Your task to perform on an android device: What's on my calendar tomorrow? Image 0: 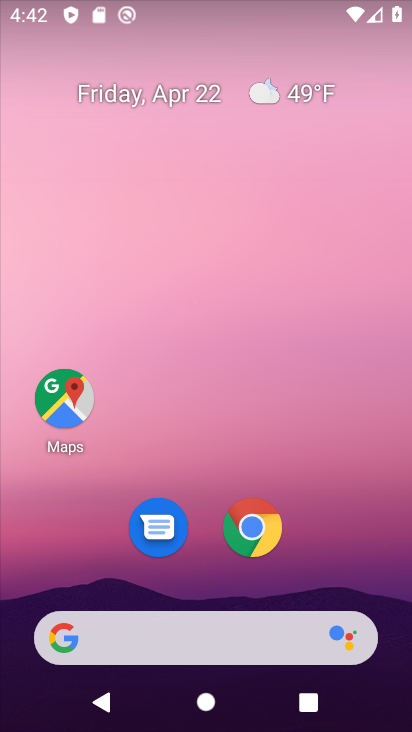
Step 0: drag from (178, 543) to (88, 208)
Your task to perform on an android device: What's on my calendar tomorrow? Image 1: 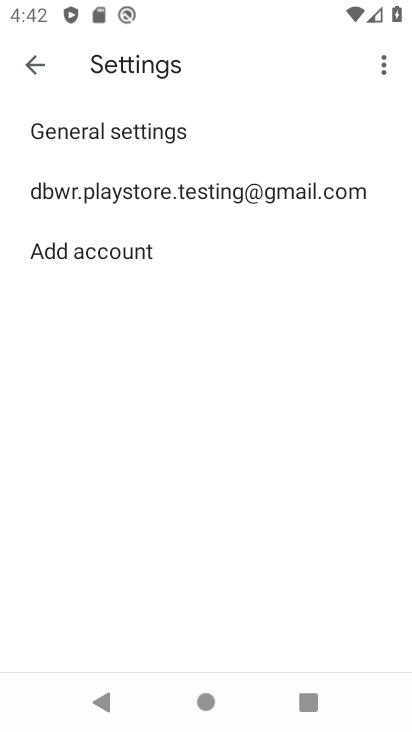
Step 1: press home button
Your task to perform on an android device: What's on my calendar tomorrow? Image 2: 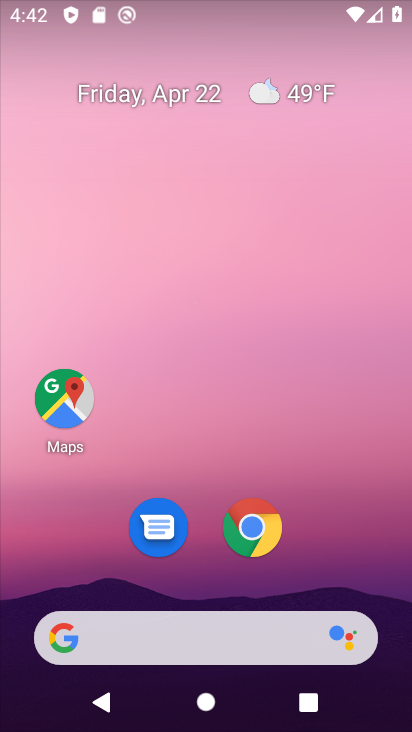
Step 2: drag from (232, 639) to (139, 85)
Your task to perform on an android device: What's on my calendar tomorrow? Image 3: 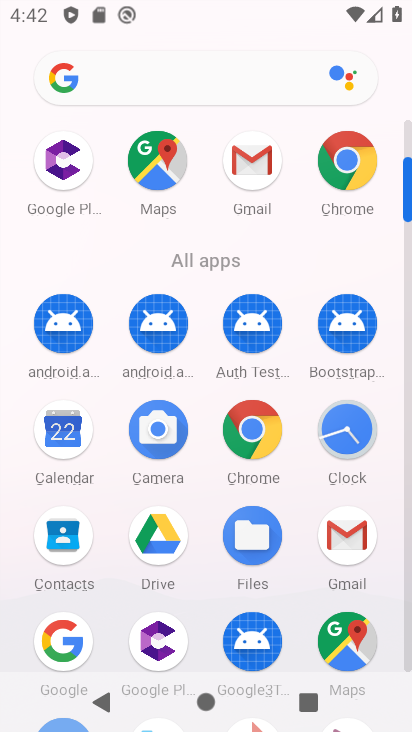
Step 3: click (80, 464)
Your task to perform on an android device: What's on my calendar tomorrow? Image 4: 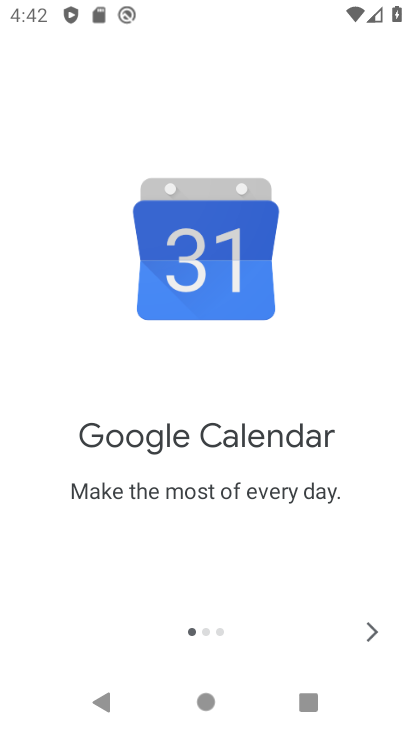
Step 4: click (363, 624)
Your task to perform on an android device: What's on my calendar tomorrow? Image 5: 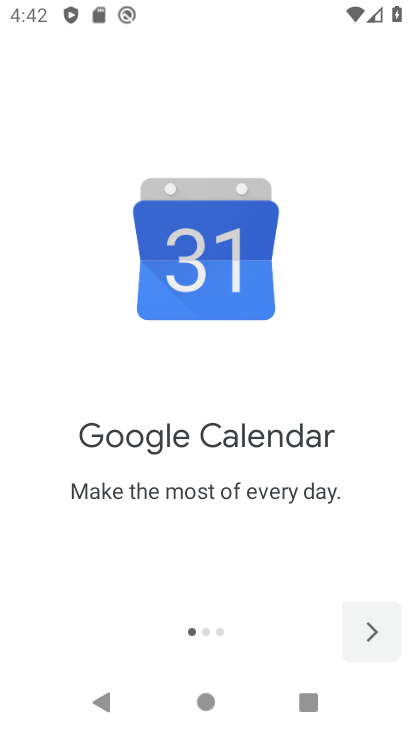
Step 5: click (361, 626)
Your task to perform on an android device: What's on my calendar tomorrow? Image 6: 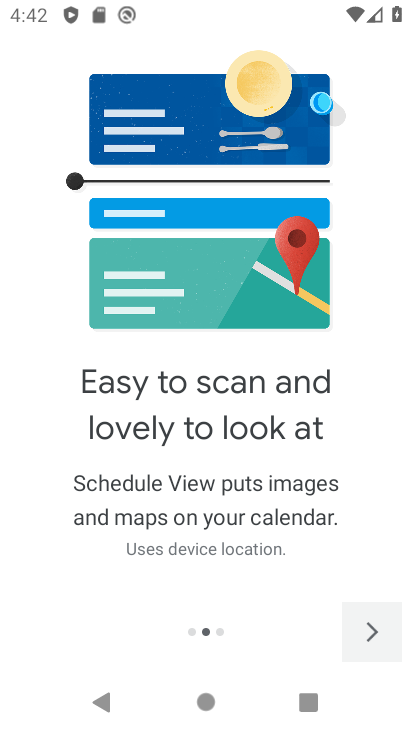
Step 6: click (361, 626)
Your task to perform on an android device: What's on my calendar tomorrow? Image 7: 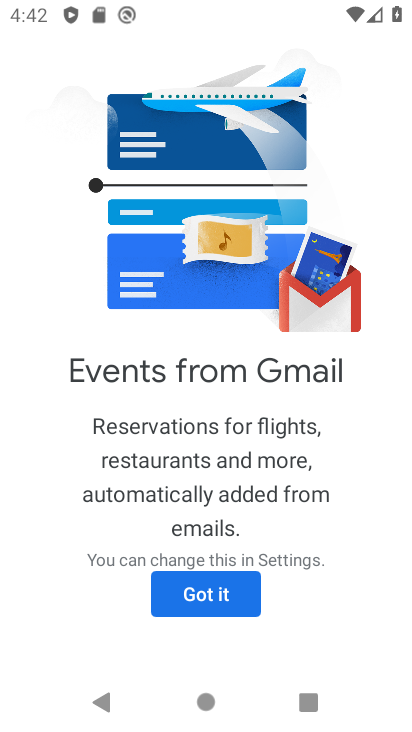
Step 7: click (208, 583)
Your task to perform on an android device: What's on my calendar tomorrow? Image 8: 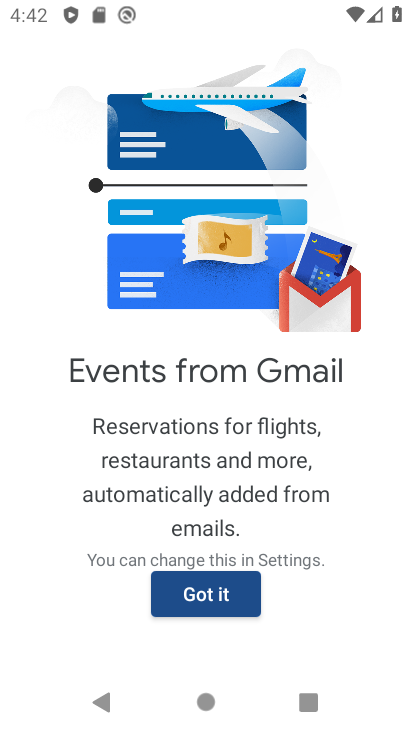
Step 8: click (208, 584)
Your task to perform on an android device: What's on my calendar tomorrow? Image 9: 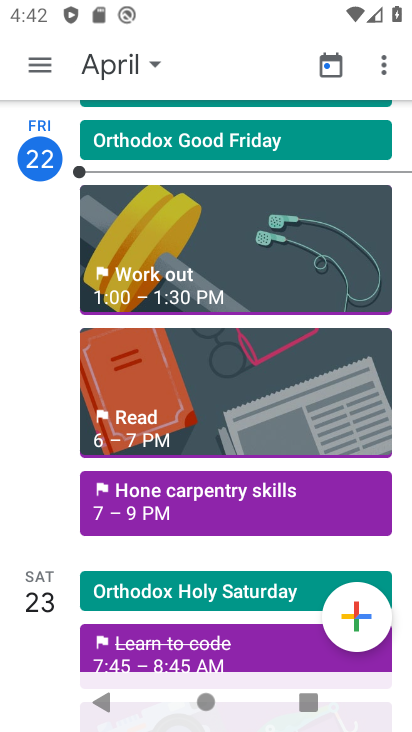
Step 9: drag from (151, 597) to (142, 170)
Your task to perform on an android device: What's on my calendar tomorrow? Image 10: 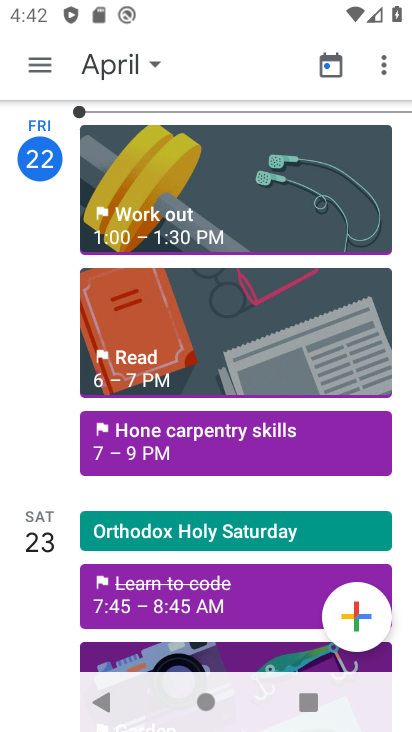
Step 10: drag from (144, 226) to (132, 98)
Your task to perform on an android device: What's on my calendar tomorrow? Image 11: 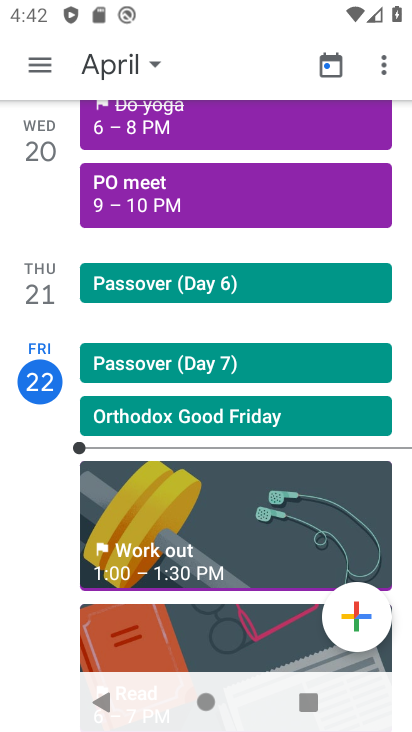
Step 11: drag from (202, 481) to (190, 114)
Your task to perform on an android device: What's on my calendar tomorrow? Image 12: 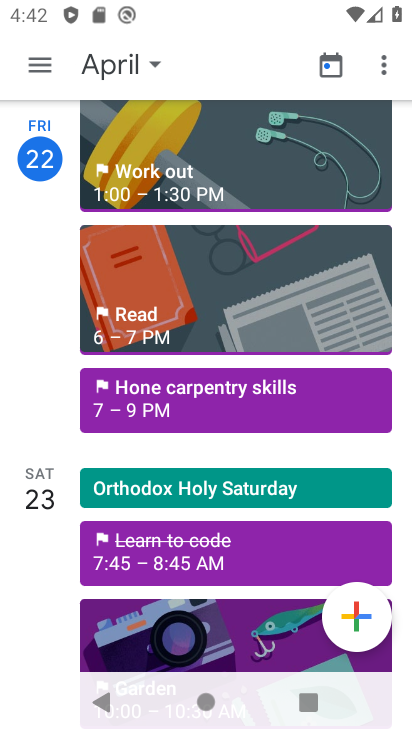
Step 12: click (35, 60)
Your task to perform on an android device: What's on my calendar tomorrow? Image 13: 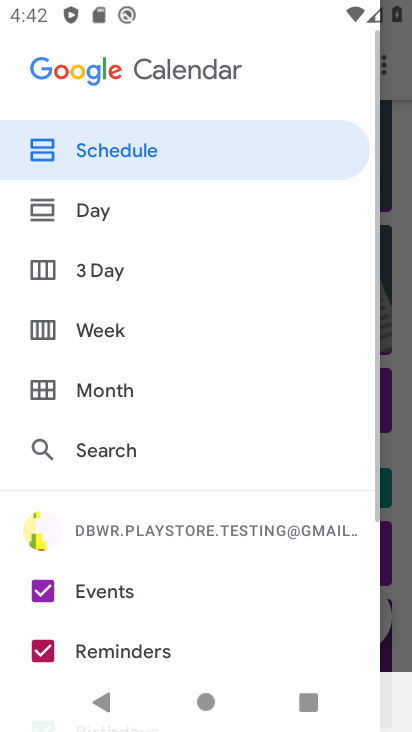
Step 13: click (397, 316)
Your task to perform on an android device: What's on my calendar tomorrow? Image 14: 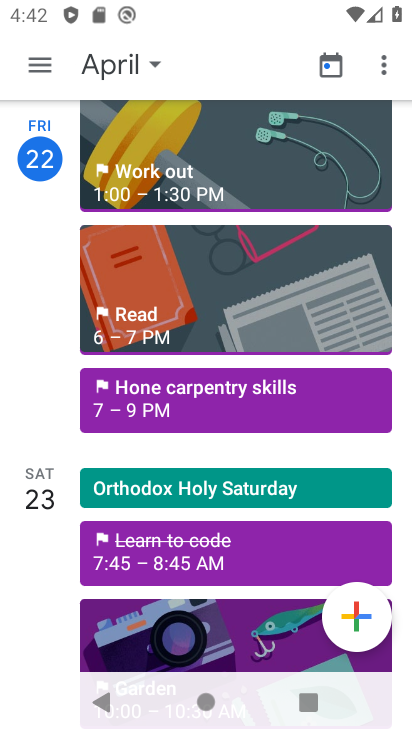
Step 14: task complete